Your task to perform on an android device: turn on bluetooth scan Image 0: 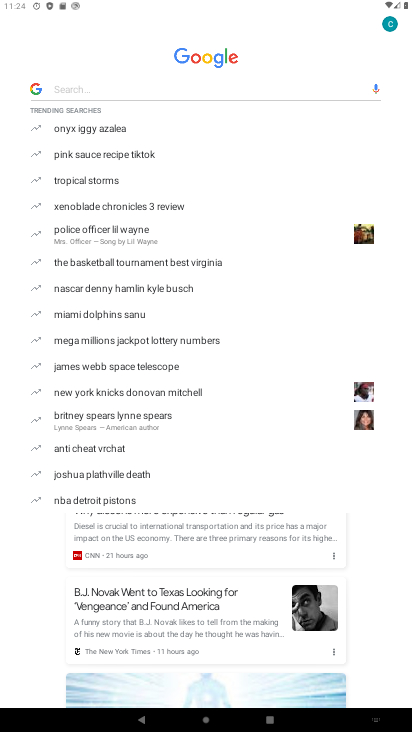
Step 0: press back button
Your task to perform on an android device: turn on bluetooth scan Image 1: 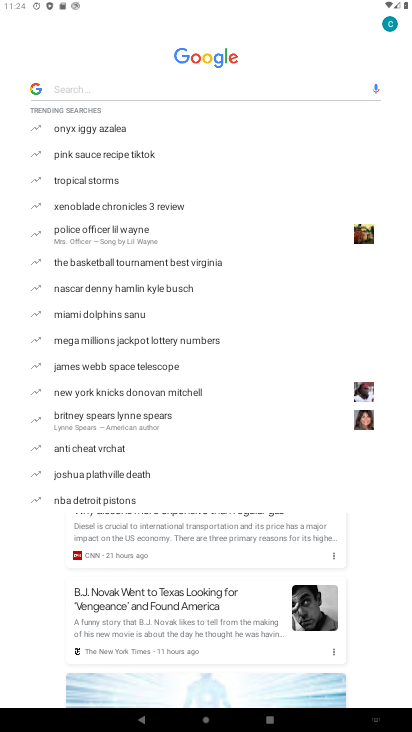
Step 1: press back button
Your task to perform on an android device: turn on bluetooth scan Image 2: 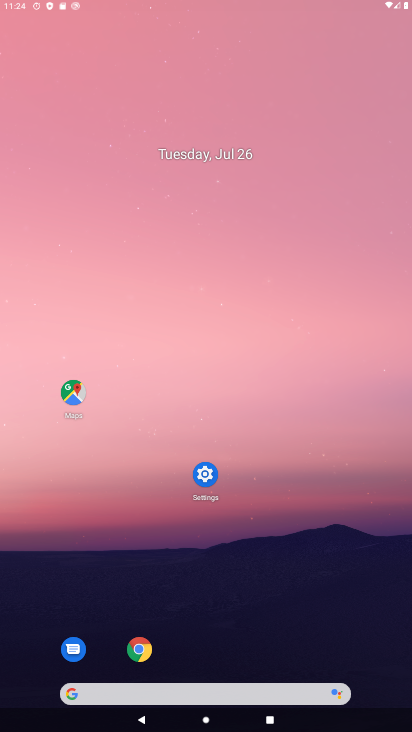
Step 2: press back button
Your task to perform on an android device: turn on bluetooth scan Image 3: 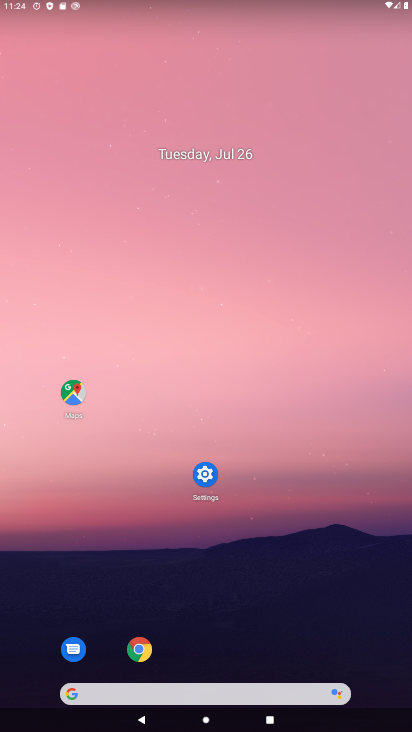
Step 3: drag from (244, 571) to (167, 153)
Your task to perform on an android device: turn on bluetooth scan Image 4: 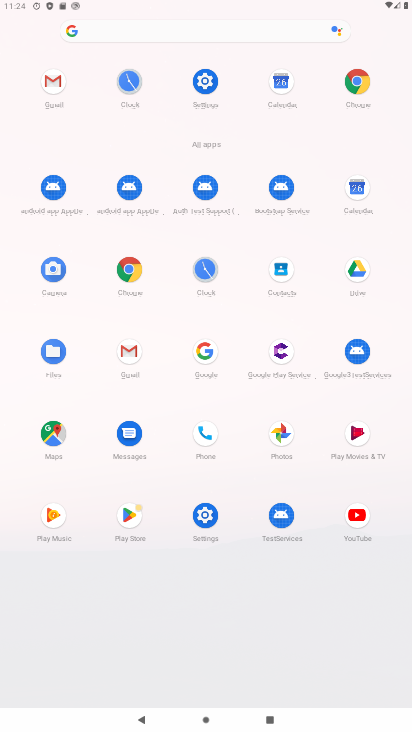
Step 4: click (193, 505)
Your task to perform on an android device: turn on bluetooth scan Image 5: 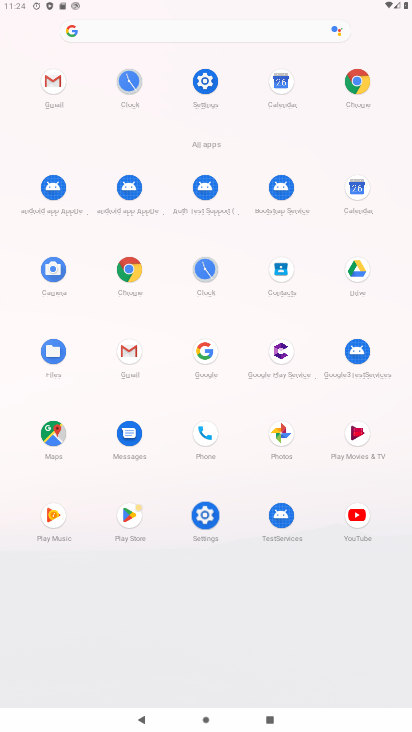
Step 5: click (195, 506)
Your task to perform on an android device: turn on bluetooth scan Image 6: 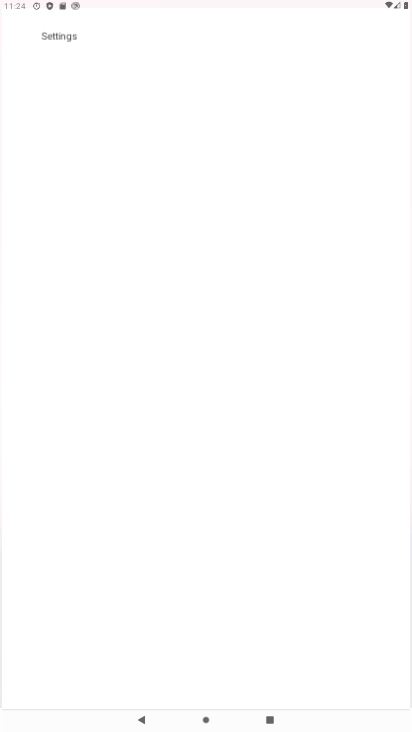
Step 6: click (194, 507)
Your task to perform on an android device: turn on bluetooth scan Image 7: 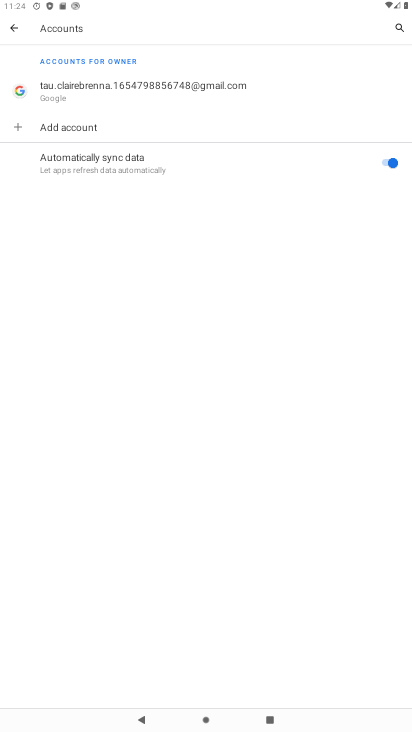
Step 7: click (13, 26)
Your task to perform on an android device: turn on bluetooth scan Image 8: 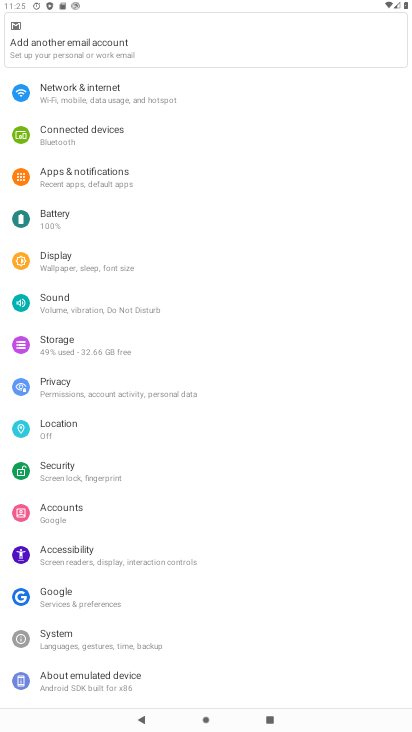
Step 8: click (56, 434)
Your task to perform on an android device: turn on bluetooth scan Image 9: 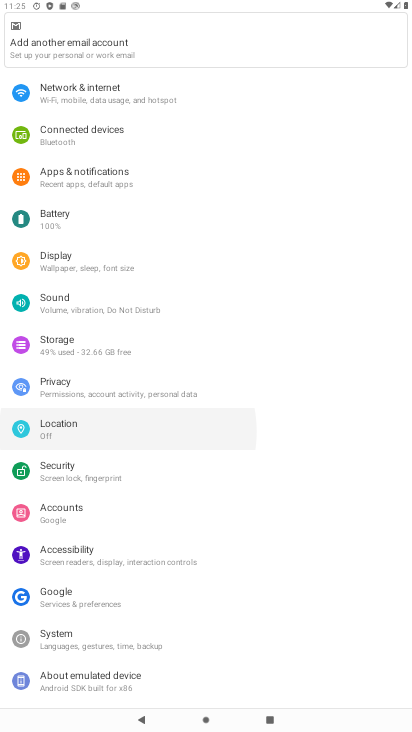
Step 9: click (55, 433)
Your task to perform on an android device: turn on bluetooth scan Image 10: 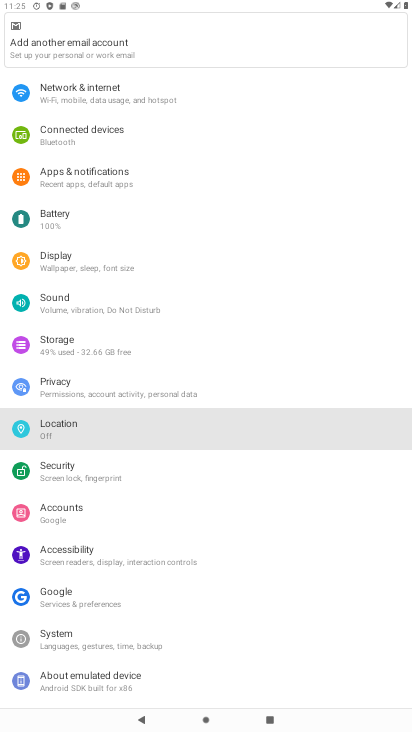
Step 10: click (54, 436)
Your task to perform on an android device: turn on bluetooth scan Image 11: 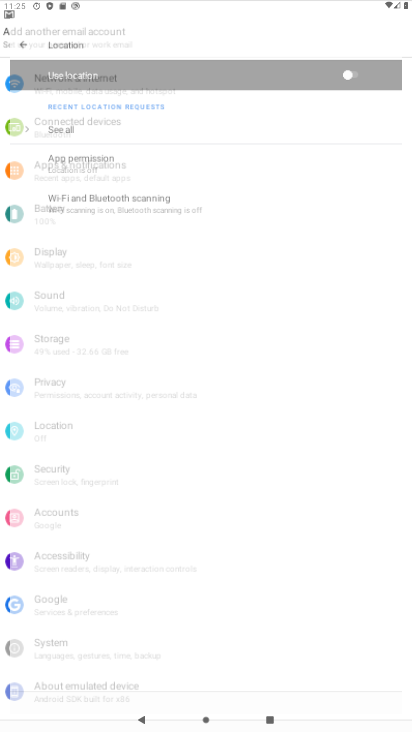
Step 11: click (54, 436)
Your task to perform on an android device: turn on bluetooth scan Image 12: 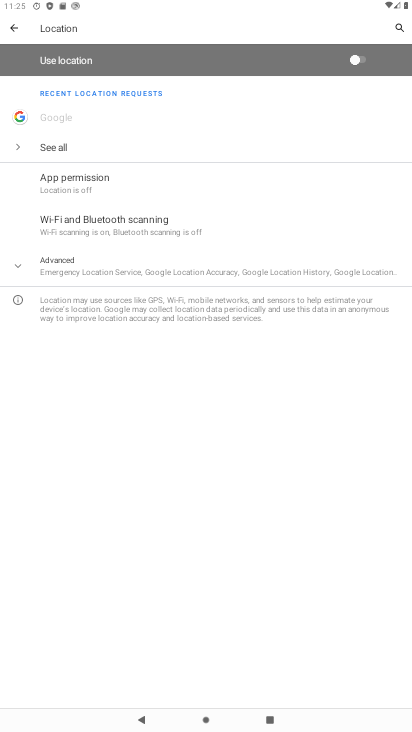
Step 12: click (88, 222)
Your task to perform on an android device: turn on bluetooth scan Image 13: 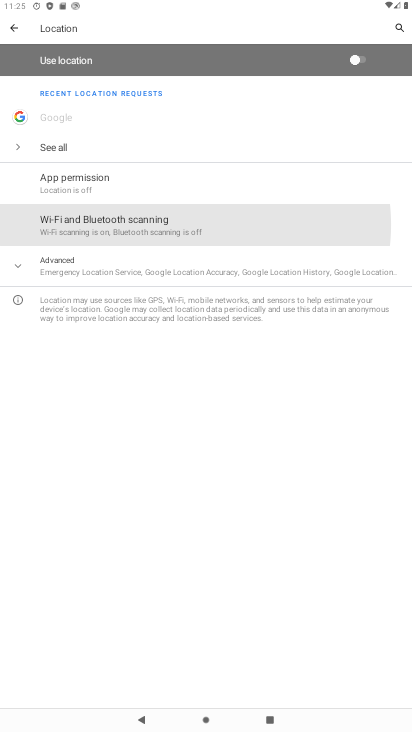
Step 13: click (93, 222)
Your task to perform on an android device: turn on bluetooth scan Image 14: 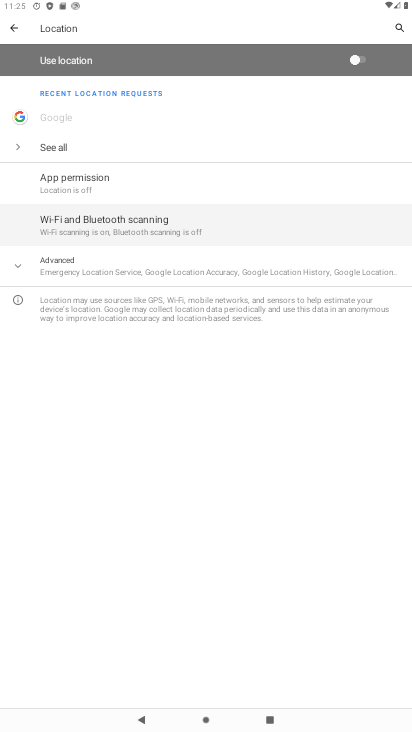
Step 14: click (93, 222)
Your task to perform on an android device: turn on bluetooth scan Image 15: 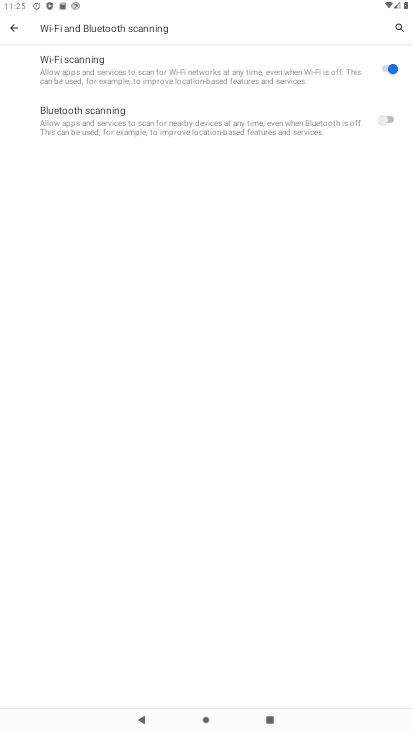
Step 15: click (379, 124)
Your task to perform on an android device: turn on bluetooth scan Image 16: 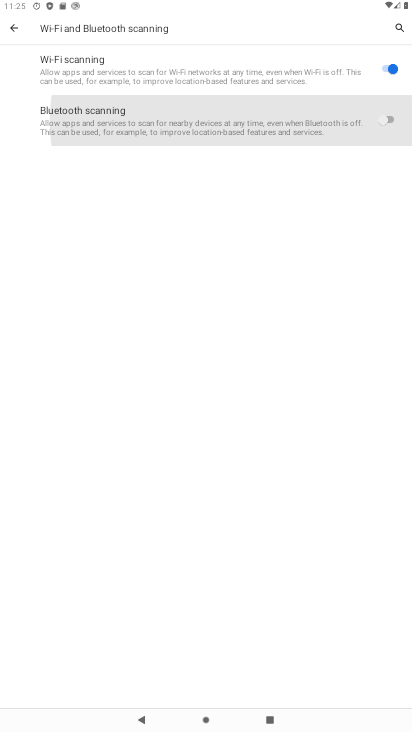
Step 16: click (387, 117)
Your task to perform on an android device: turn on bluetooth scan Image 17: 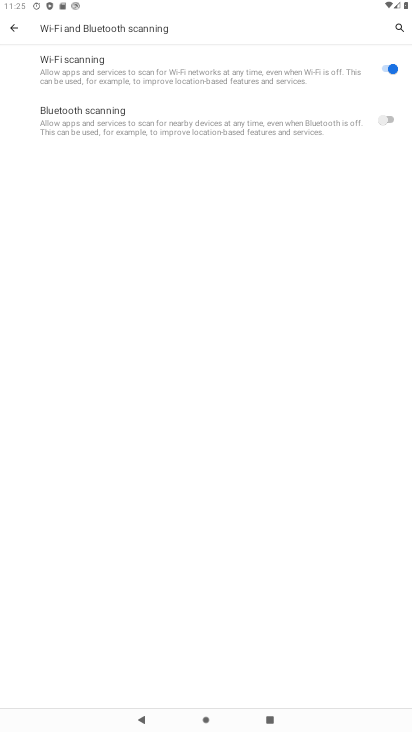
Step 17: click (387, 115)
Your task to perform on an android device: turn on bluetooth scan Image 18: 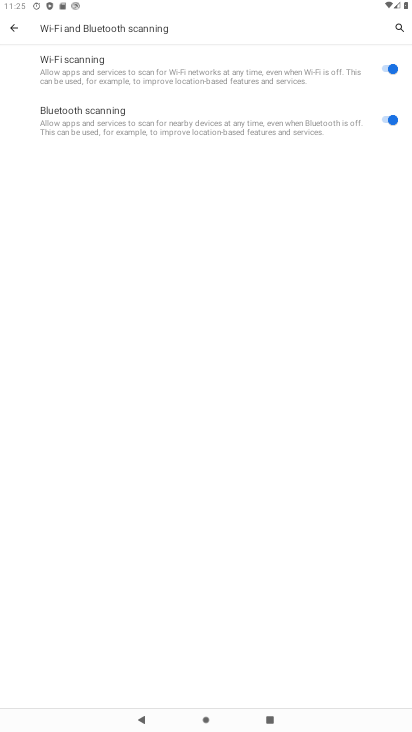
Step 18: task complete